Your task to perform on an android device: open chrome and create a bookmark for the current page Image 0: 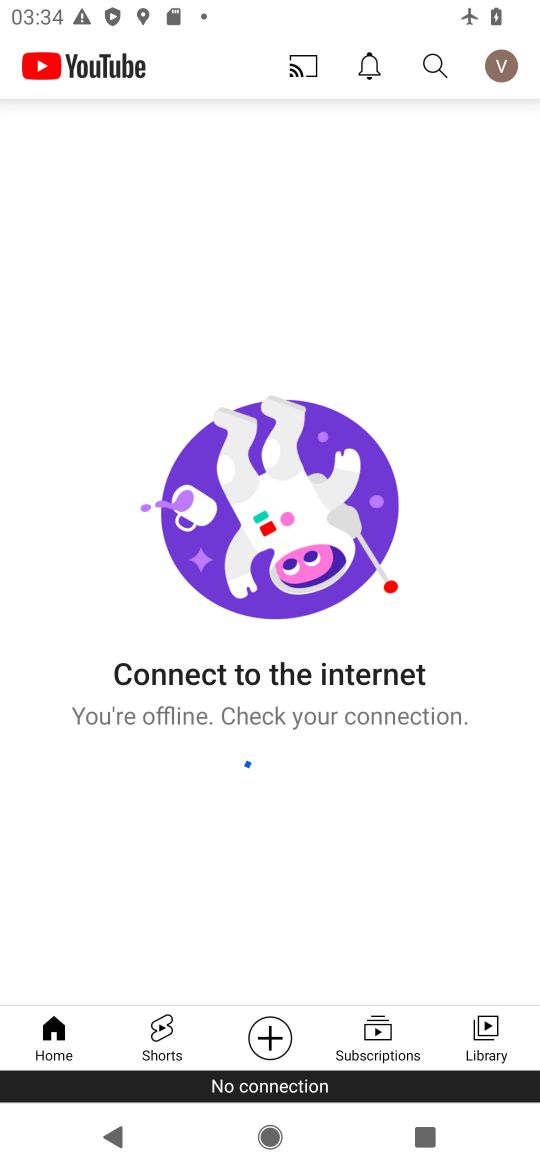
Step 0: press home button
Your task to perform on an android device: open chrome and create a bookmark for the current page Image 1: 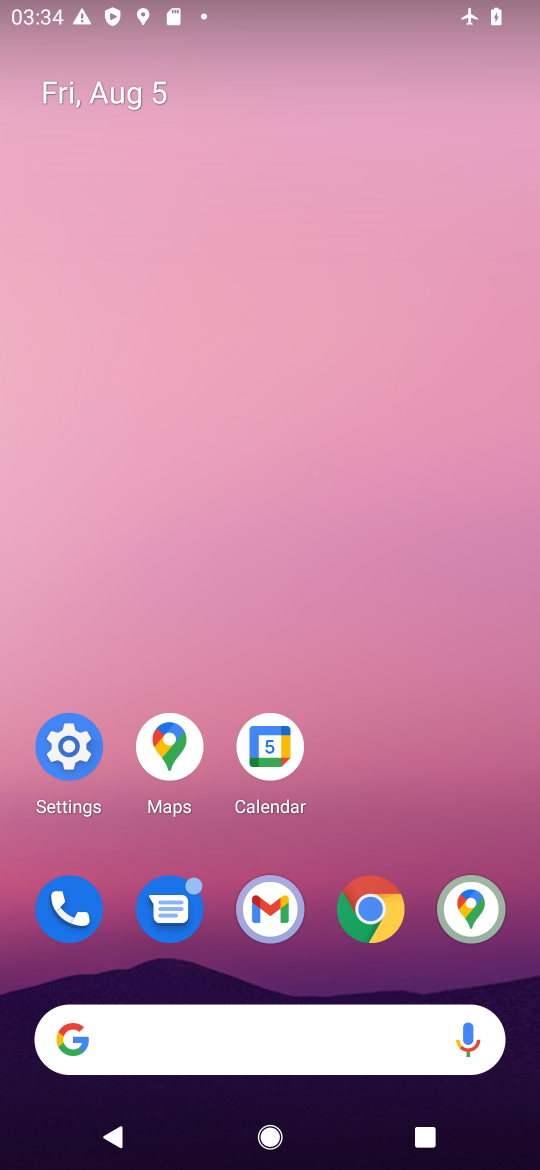
Step 1: click (372, 911)
Your task to perform on an android device: open chrome and create a bookmark for the current page Image 2: 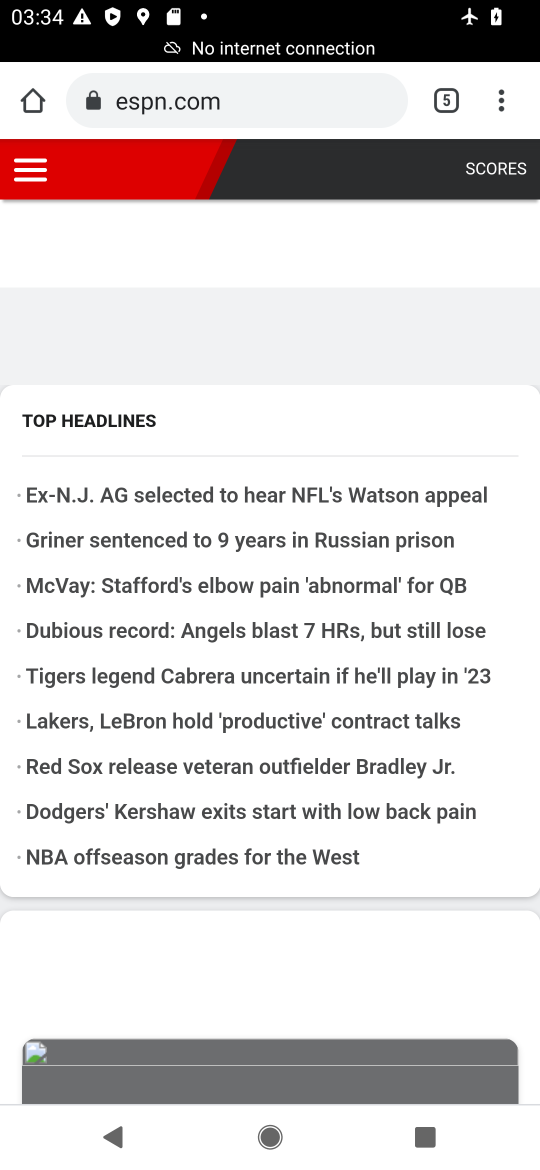
Step 2: click (499, 86)
Your task to perform on an android device: open chrome and create a bookmark for the current page Image 3: 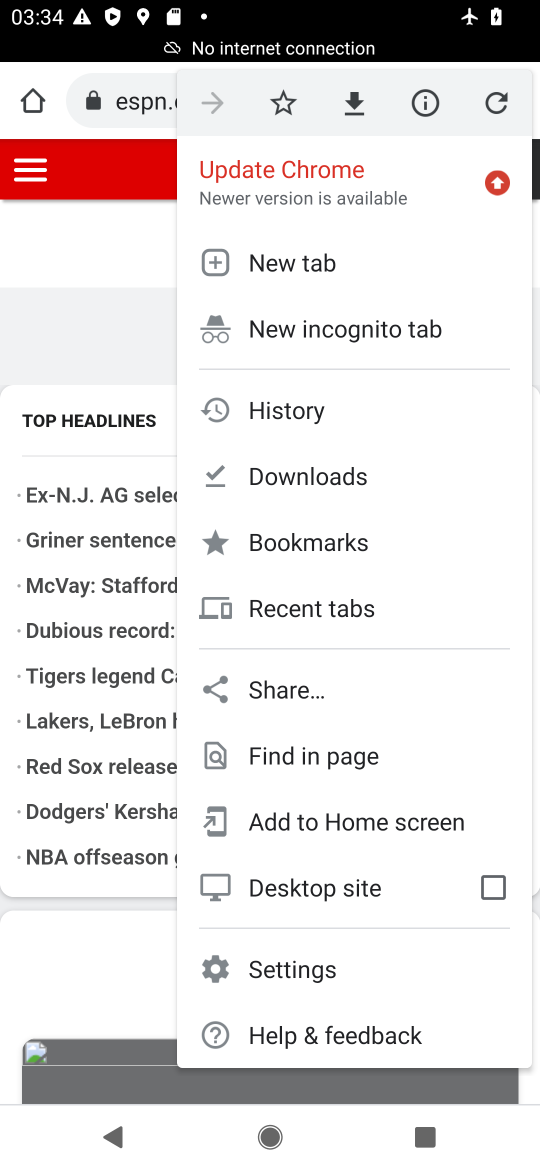
Step 3: click (281, 101)
Your task to perform on an android device: open chrome and create a bookmark for the current page Image 4: 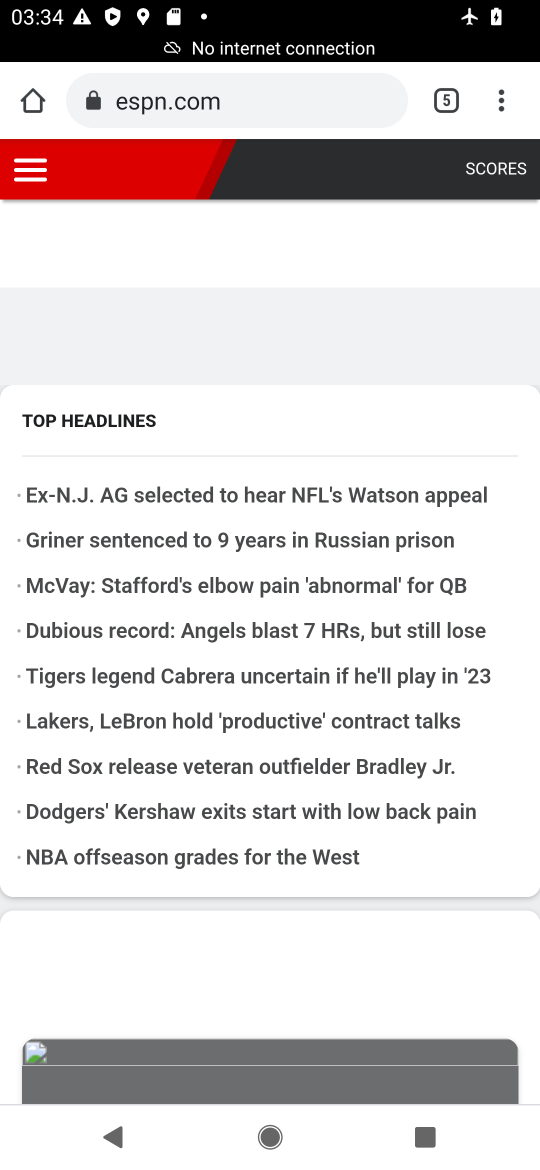
Step 4: task complete